Your task to perform on an android device: Empty the shopping cart on walmart. Search for "apple airpods" on walmart, select the first entry, add it to the cart, then select checkout. Image 0: 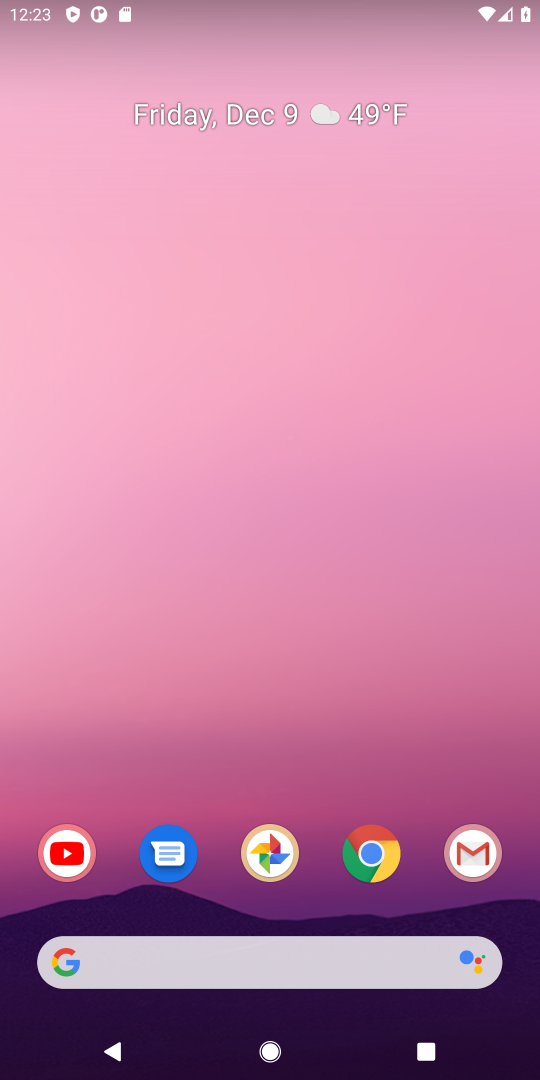
Step 0: drag from (289, 935) to (302, 170)
Your task to perform on an android device: Empty the shopping cart on walmart. Search for "apple airpods" on walmart, select the first entry, add it to the cart, then select checkout. Image 1: 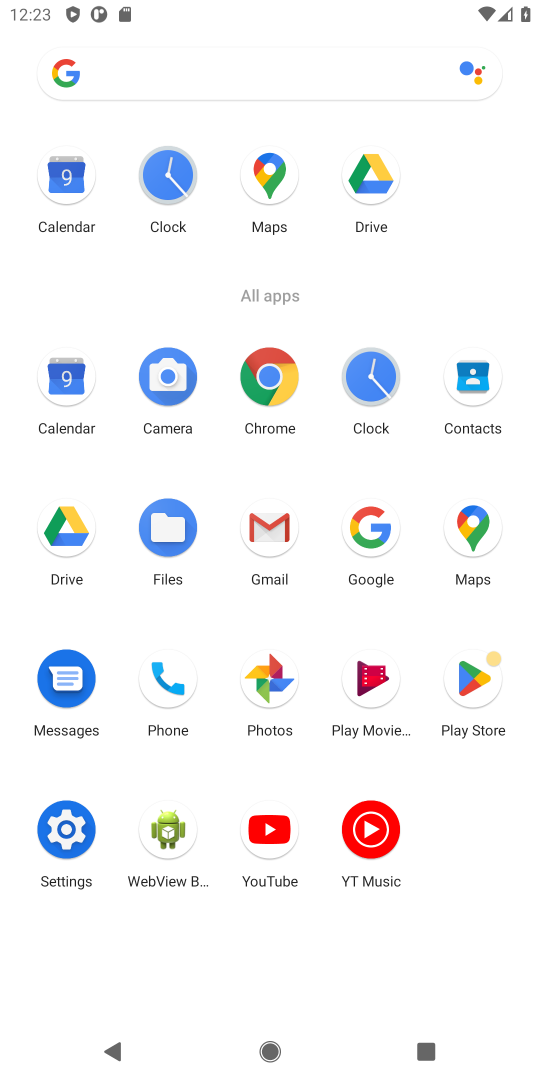
Step 1: click (364, 520)
Your task to perform on an android device: Empty the shopping cart on walmart. Search for "apple airpods" on walmart, select the first entry, add it to the cart, then select checkout. Image 2: 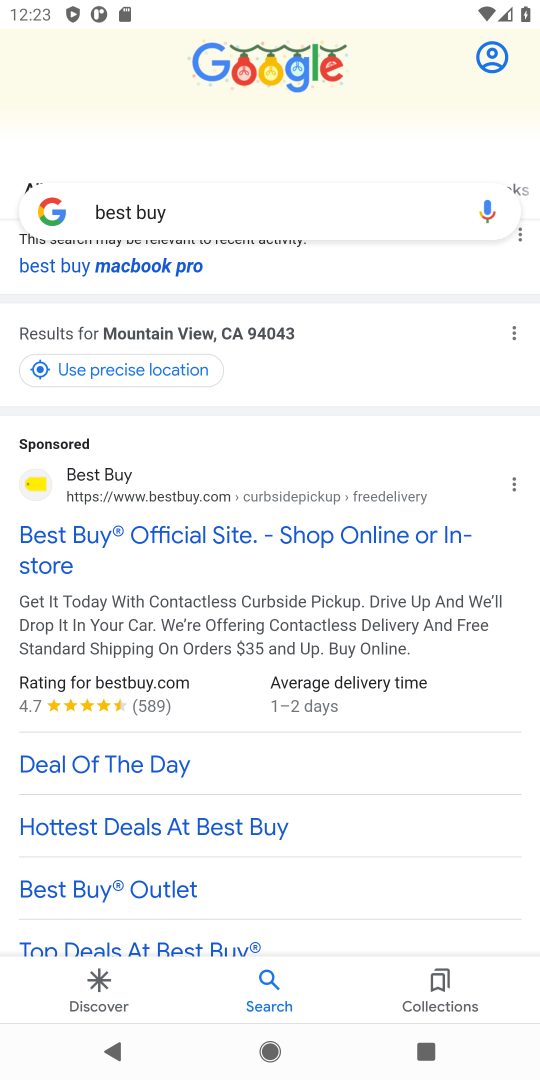
Step 2: click (132, 214)
Your task to perform on an android device: Empty the shopping cart on walmart. Search for "apple airpods" on walmart, select the first entry, add it to the cart, then select checkout. Image 3: 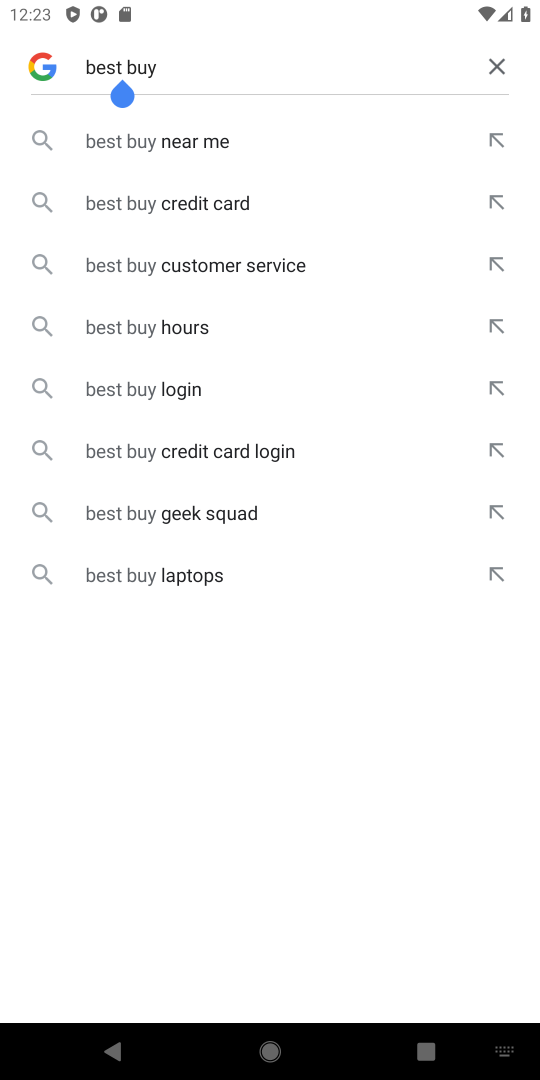
Step 3: click (500, 66)
Your task to perform on an android device: Empty the shopping cart on walmart. Search for "apple airpods" on walmart, select the first entry, add it to the cart, then select checkout. Image 4: 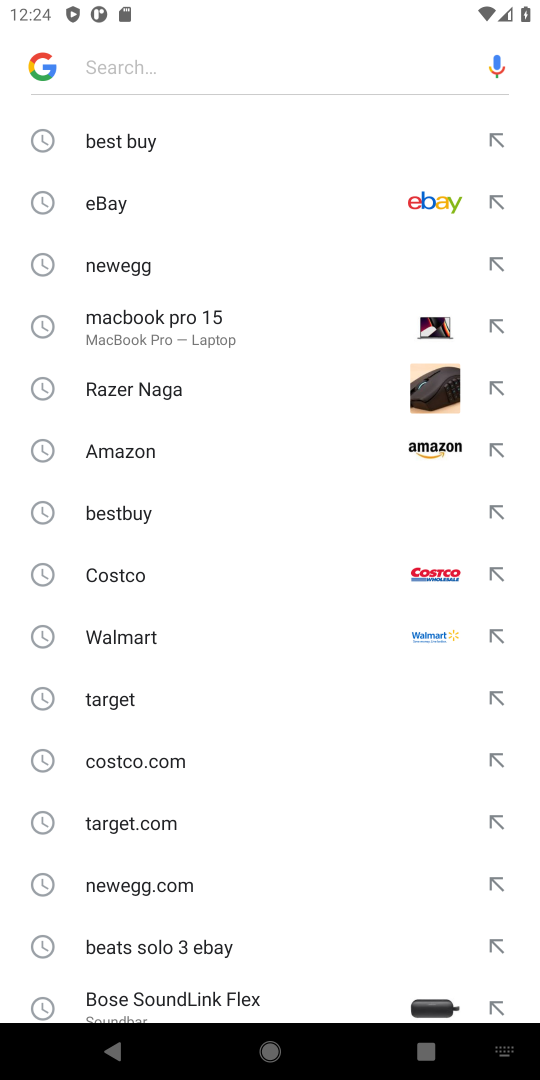
Step 4: click (103, 636)
Your task to perform on an android device: Empty the shopping cart on walmart. Search for "apple airpods" on walmart, select the first entry, add it to the cart, then select checkout. Image 5: 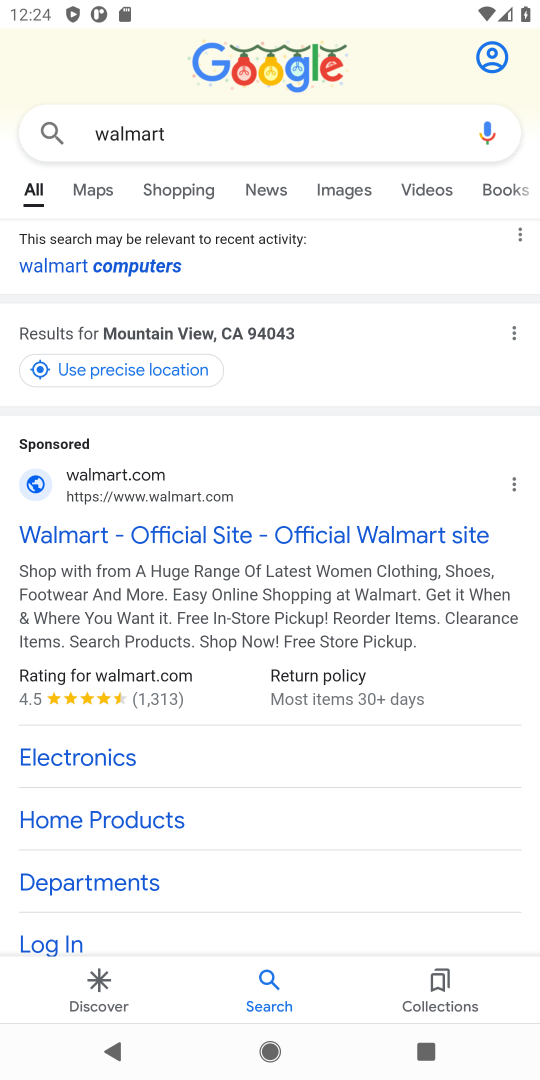
Step 5: click (88, 532)
Your task to perform on an android device: Empty the shopping cart on walmart. Search for "apple airpods" on walmart, select the first entry, add it to the cart, then select checkout. Image 6: 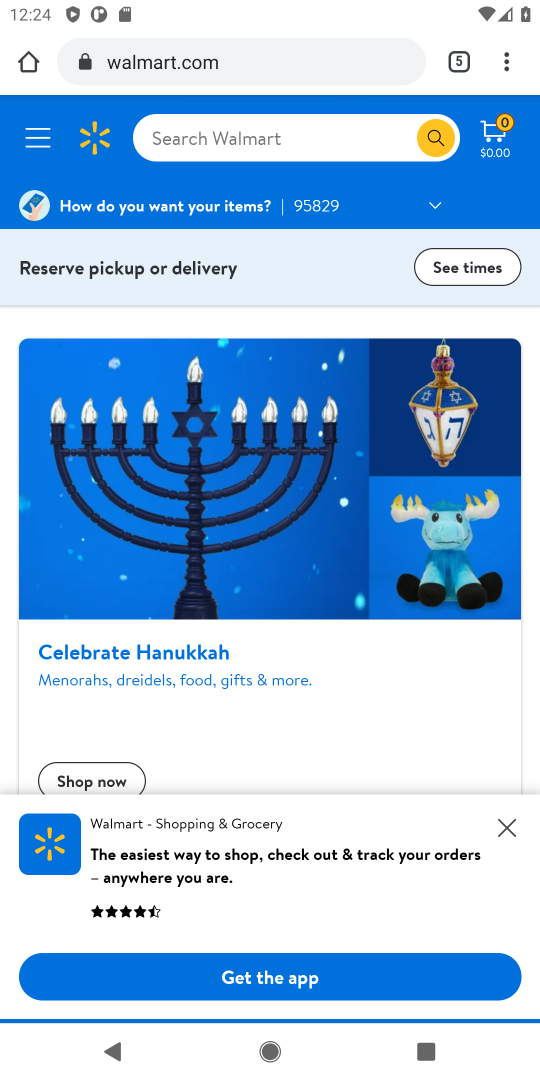
Step 6: click (160, 140)
Your task to perform on an android device: Empty the shopping cart on walmart. Search for "apple airpods" on walmart, select the first entry, add it to the cart, then select checkout. Image 7: 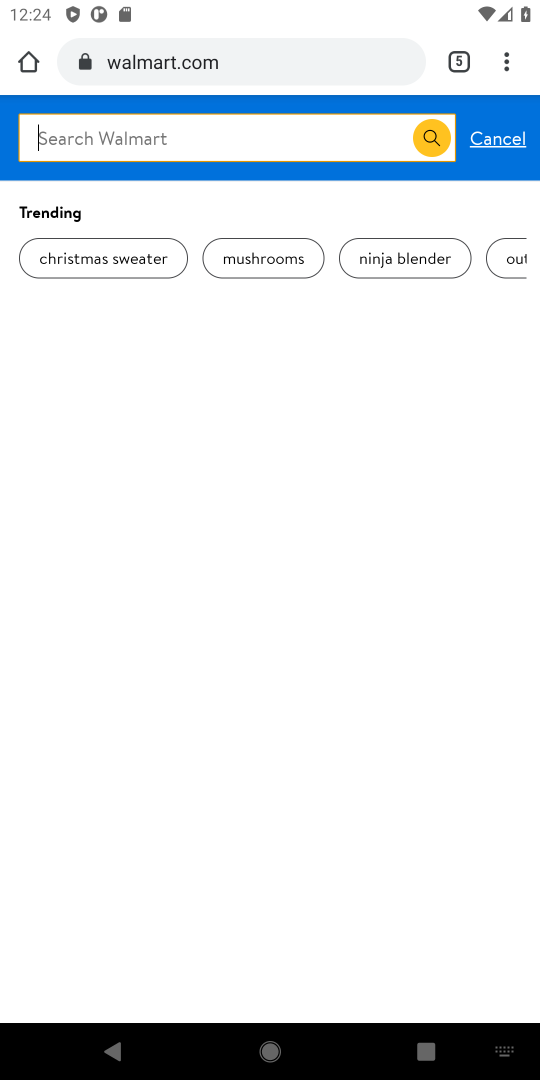
Step 7: type "apple airpods"
Your task to perform on an android device: Empty the shopping cart on walmart. Search for "apple airpods" on walmart, select the first entry, add it to the cart, then select checkout. Image 8: 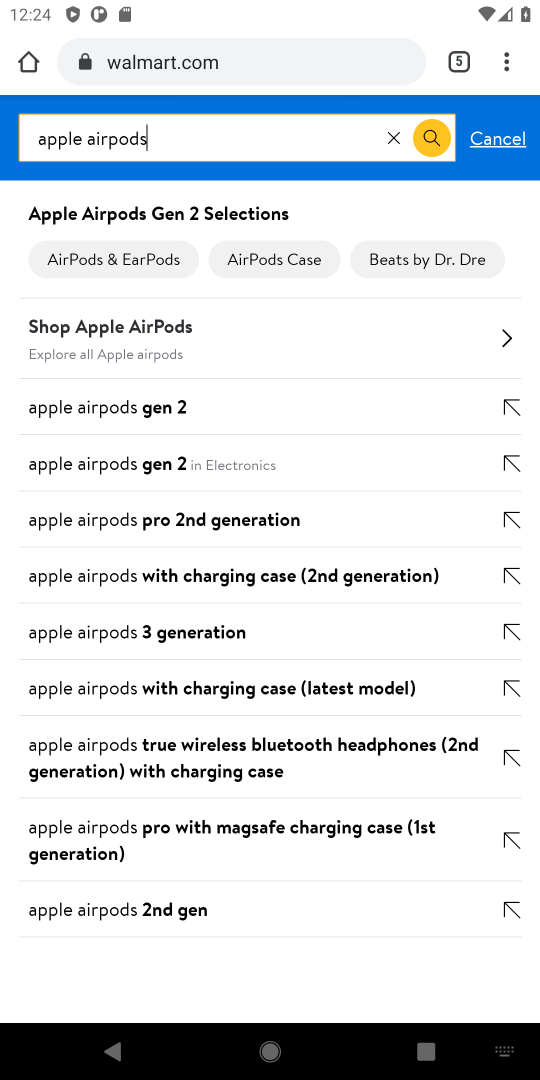
Step 8: click (150, 325)
Your task to perform on an android device: Empty the shopping cart on walmart. Search for "apple airpods" on walmart, select the first entry, add it to the cart, then select checkout. Image 9: 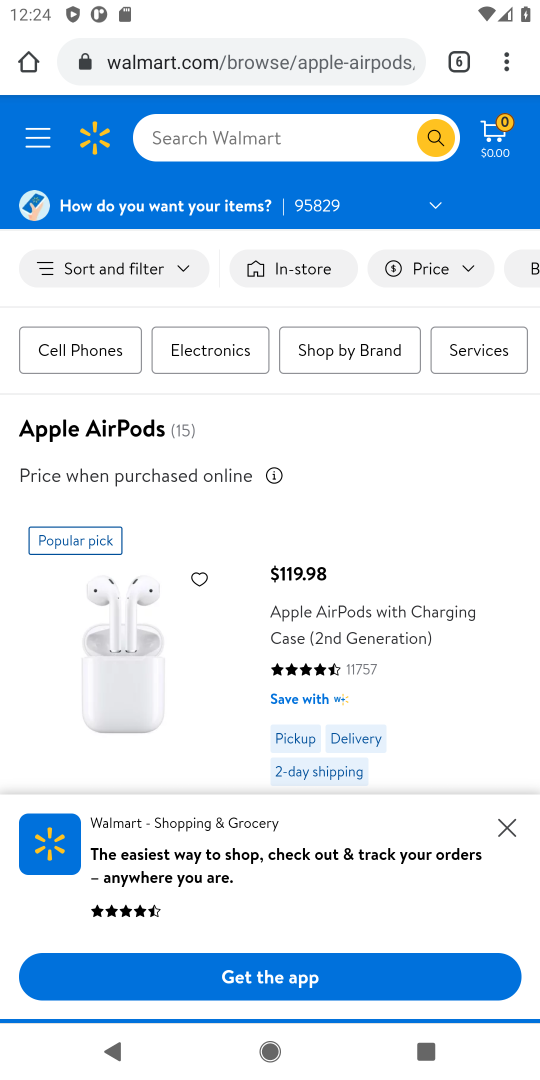
Step 9: click (506, 826)
Your task to perform on an android device: Empty the shopping cart on walmart. Search for "apple airpods" on walmart, select the first entry, add it to the cart, then select checkout. Image 10: 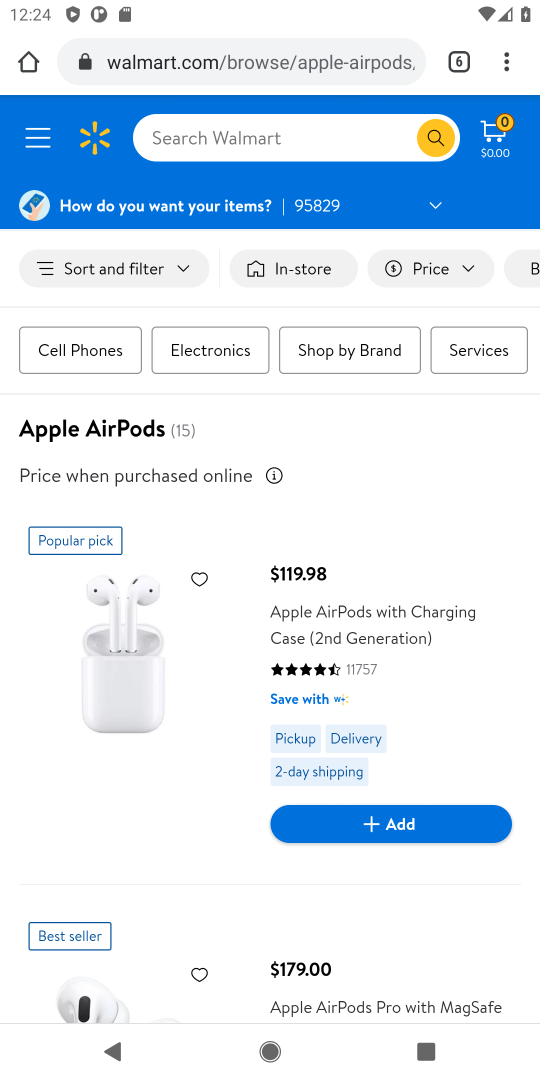
Step 10: click (403, 830)
Your task to perform on an android device: Empty the shopping cart on walmart. Search for "apple airpods" on walmart, select the first entry, add it to the cart, then select checkout. Image 11: 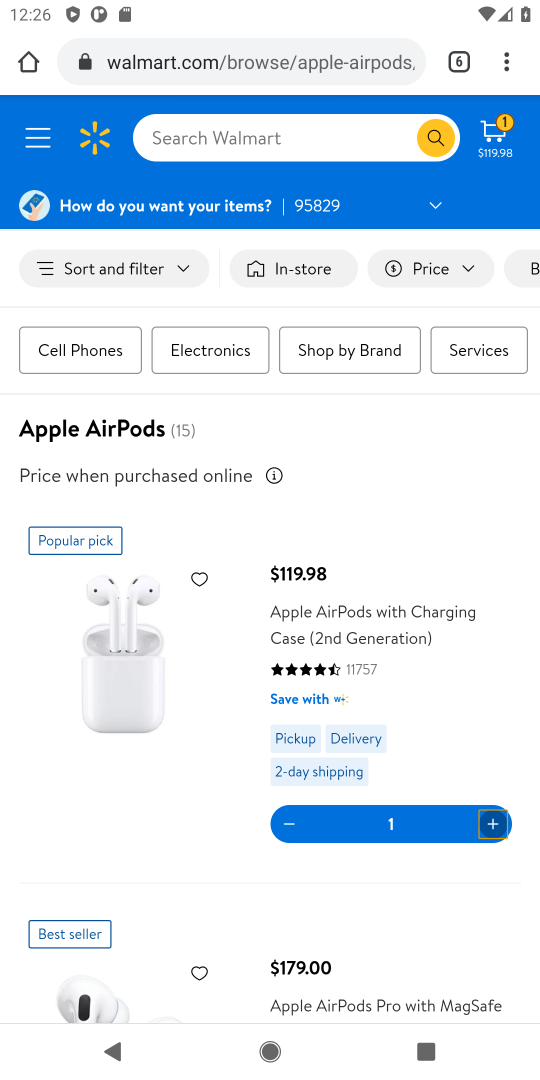
Step 11: click (497, 127)
Your task to perform on an android device: Empty the shopping cart on walmart. Search for "apple airpods" on walmart, select the first entry, add it to the cart, then select checkout. Image 12: 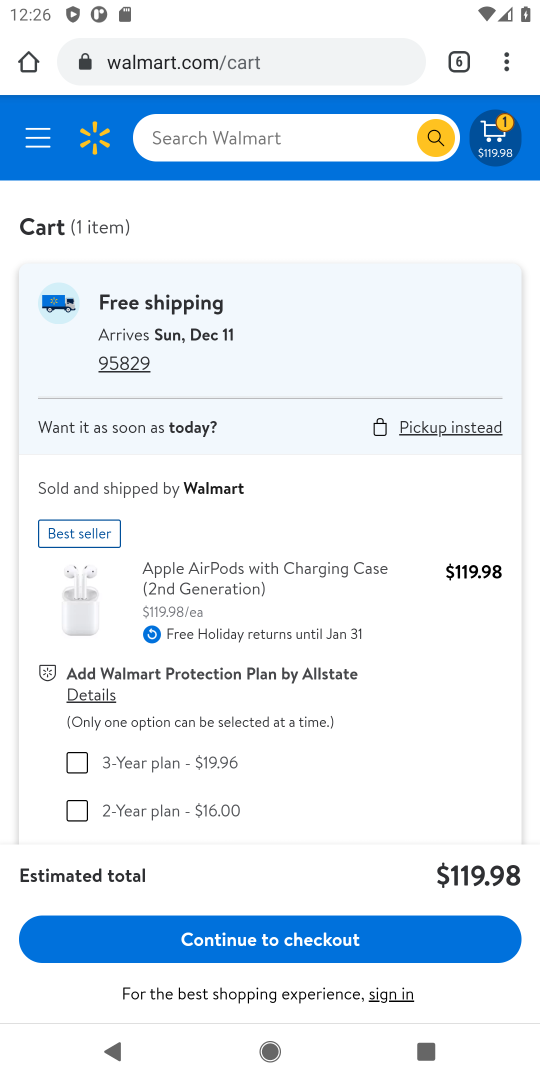
Step 12: click (255, 943)
Your task to perform on an android device: Empty the shopping cart on walmart. Search for "apple airpods" on walmart, select the first entry, add it to the cart, then select checkout. Image 13: 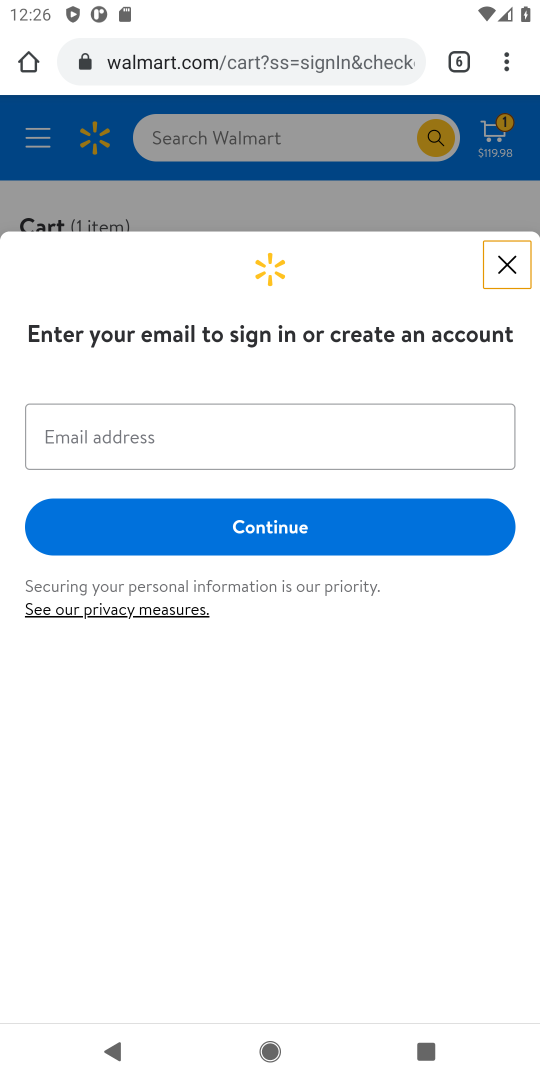
Step 13: task complete